Your task to perform on an android device: manage bookmarks in the chrome app Image 0: 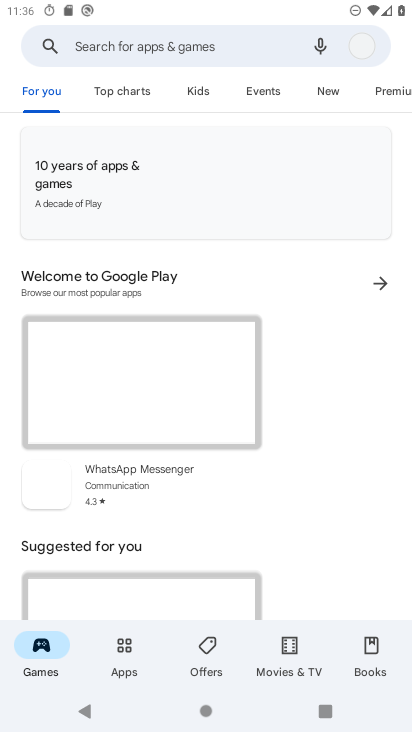
Step 0: press home button
Your task to perform on an android device: manage bookmarks in the chrome app Image 1: 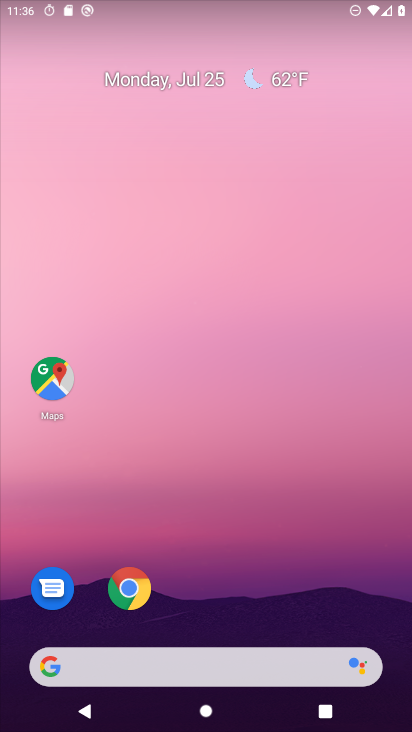
Step 1: click (140, 595)
Your task to perform on an android device: manage bookmarks in the chrome app Image 2: 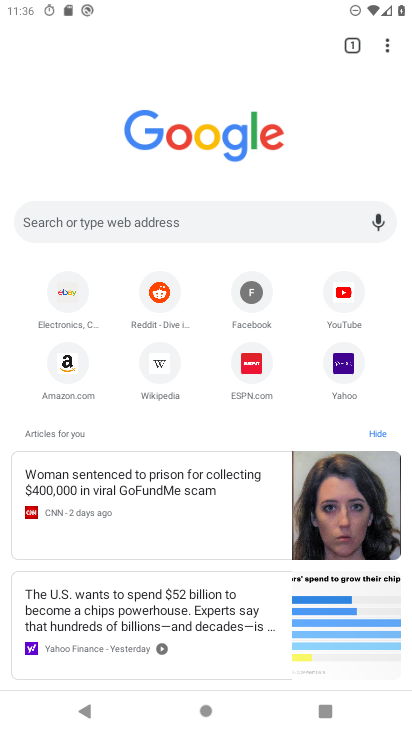
Step 2: click (386, 46)
Your task to perform on an android device: manage bookmarks in the chrome app Image 3: 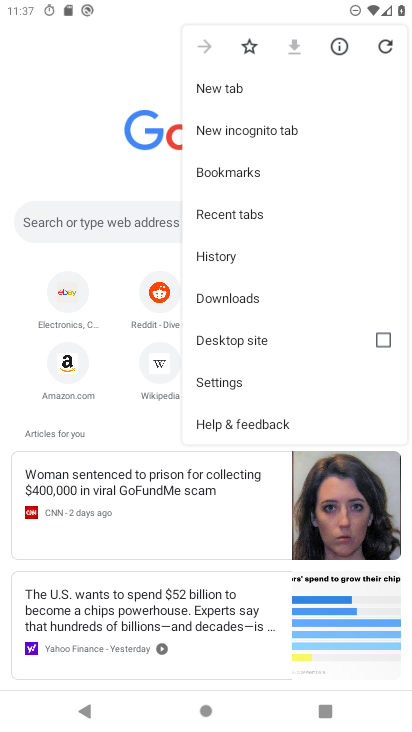
Step 3: click (233, 172)
Your task to perform on an android device: manage bookmarks in the chrome app Image 4: 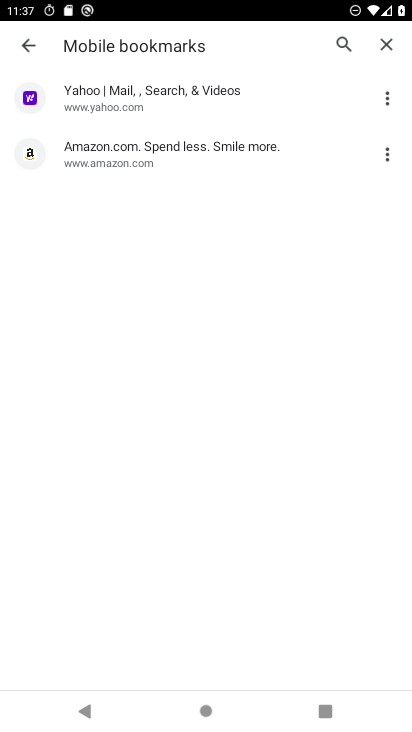
Step 4: click (386, 101)
Your task to perform on an android device: manage bookmarks in the chrome app Image 5: 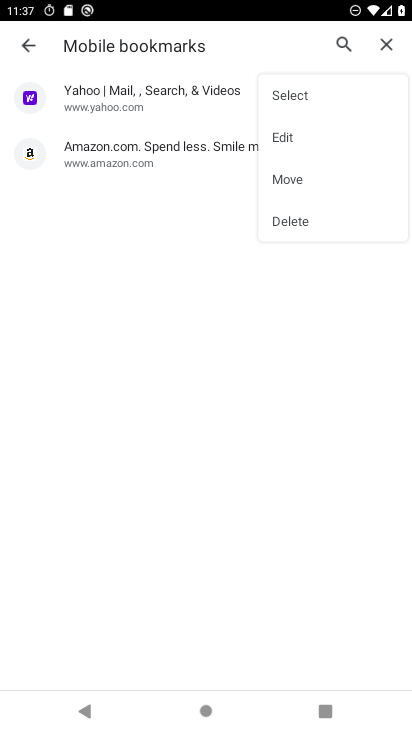
Step 5: click (315, 216)
Your task to perform on an android device: manage bookmarks in the chrome app Image 6: 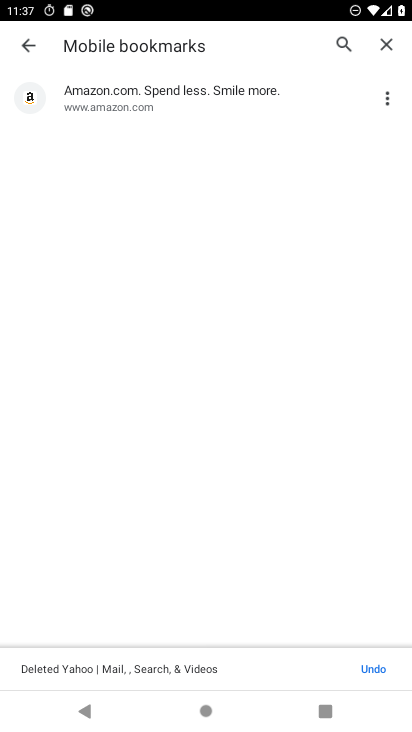
Step 6: task complete